Your task to perform on an android device: manage bookmarks in the chrome app Image 0: 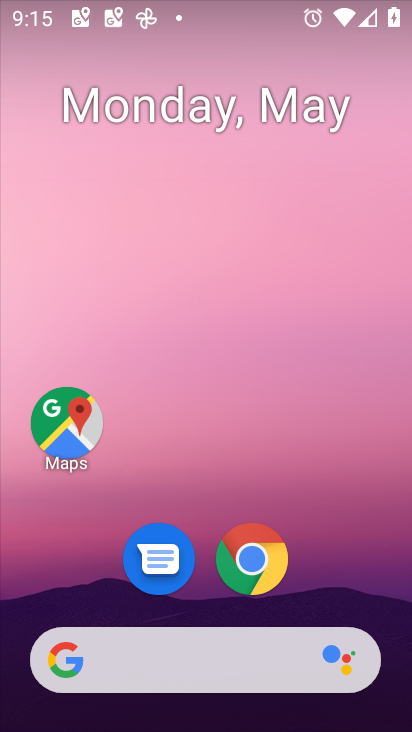
Step 0: drag from (380, 665) to (288, 62)
Your task to perform on an android device: manage bookmarks in the chrome app Image 1: 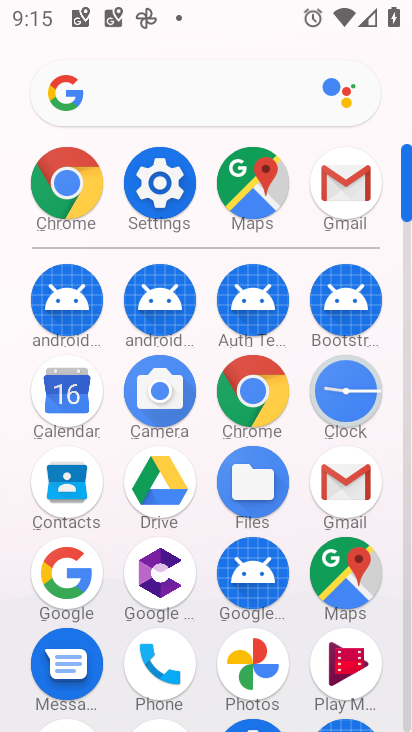
Step 1: click (255, 392)
Your task to perform on an android device: manage bookmarks in the chrome app Image 2: 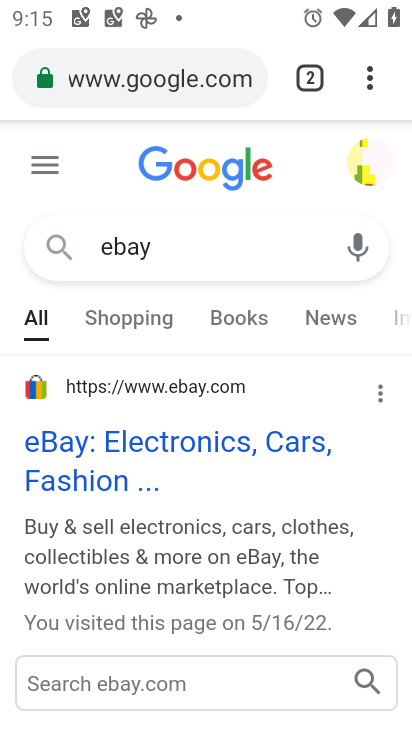
Step 2: press back button
Your task to perform on an android device: manage bookmarks in the chrome app Image 3: 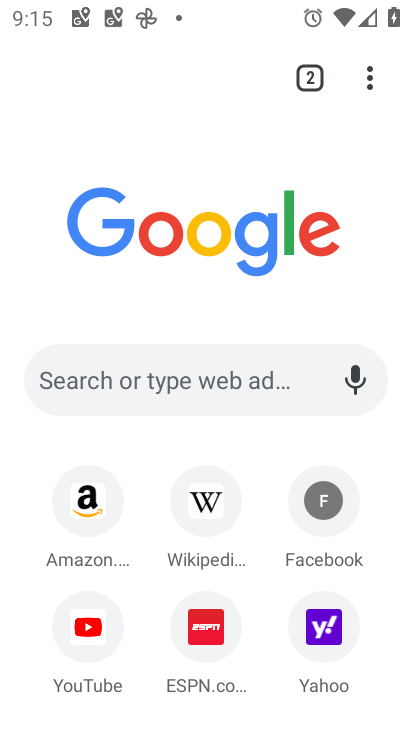
Step 3: click (364, 79)
Your task to perform on an android device: manage bookmarks in the chrome app Image 4: 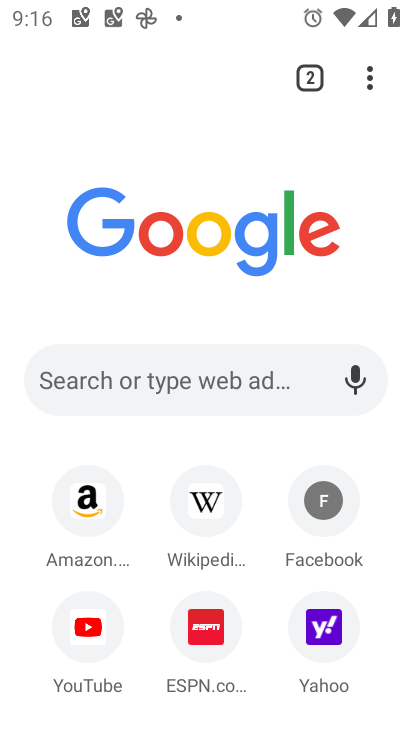
Step 4: click (373, 74)
Your task to perform on an android device: manage bookmarks in the chrome app Image 5: 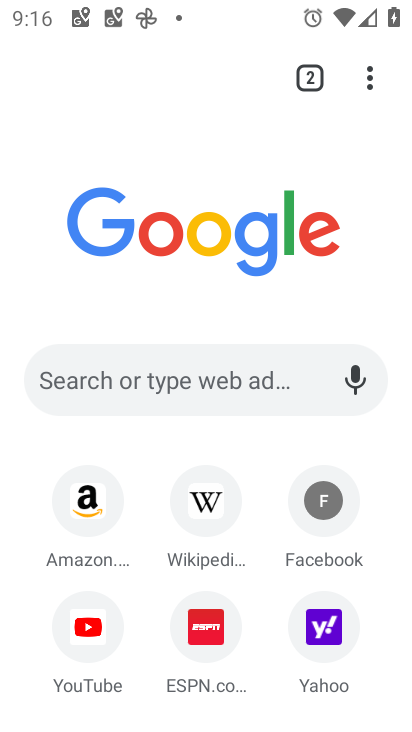
Step 5: click (373, 74)
Your task to perform on an android device: manage bookmarks in the chrome app Image 6: 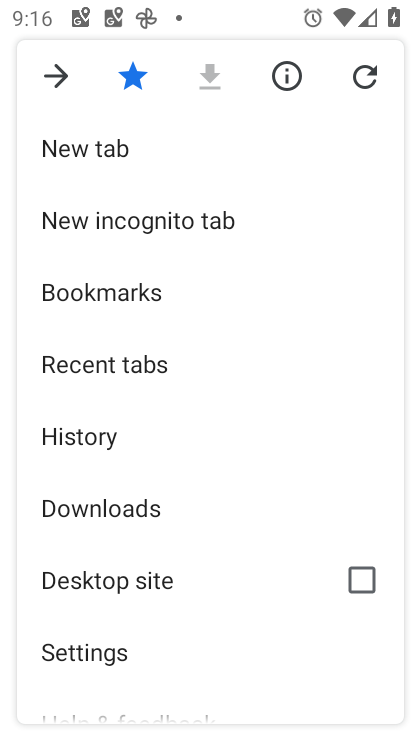
Step 6: click (131, 276)
Your task to perform on an android device: manage bookmarks in the chrome app Image 7: 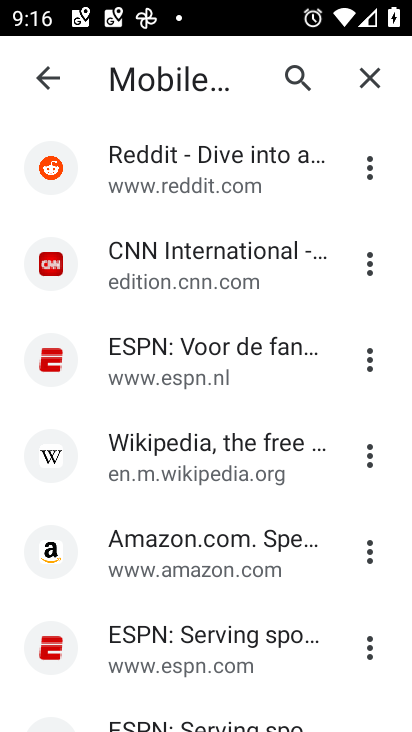
Step 7: task complete